Your task to perform on an android device: See recent photos Image 0: 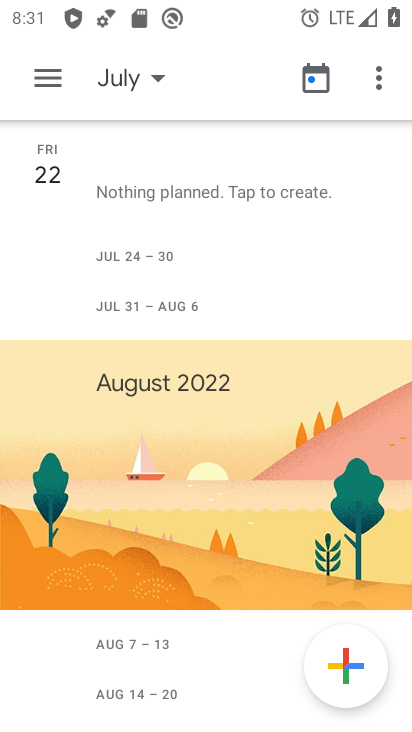
Step 0: press home button
Your task to perform on an android device: See recent photos Image 1: 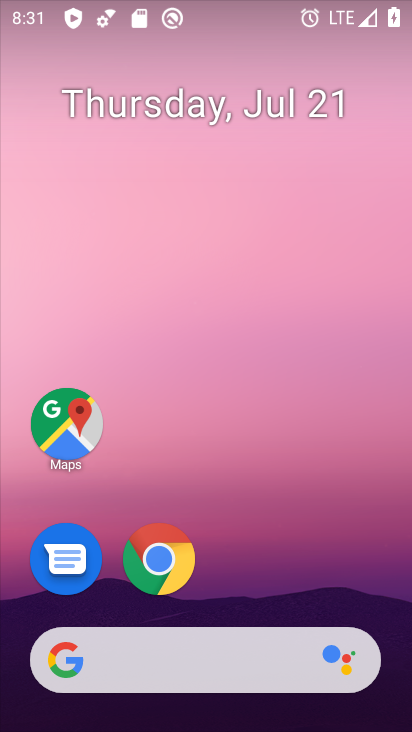
Step 1: drag from (354, 550) to (374, 128)
Your task to perform on an android device: See recent photos Image 2: 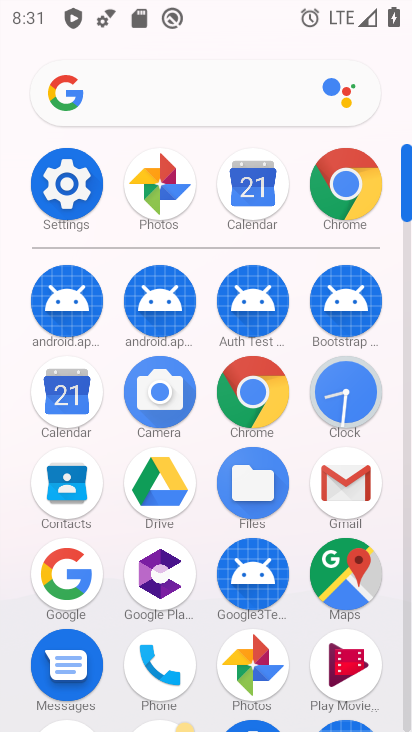
Step 2: click (165, 198)
Your task to perform on an android device: See recent photos Image 3: 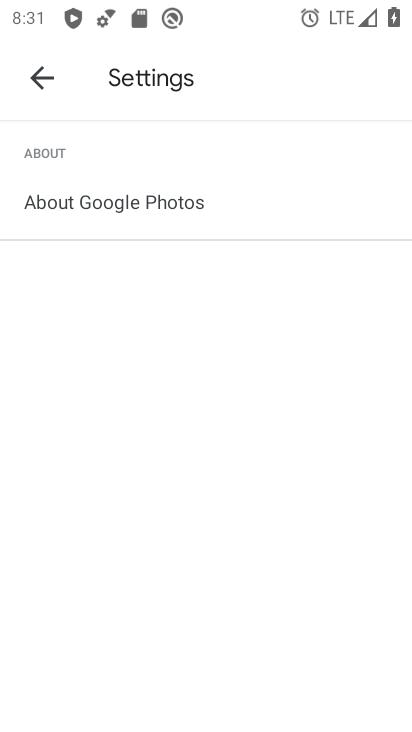
Step 3: task complete